Your task to perform on an android device: turn on the 24-hour format for clock Image 0: 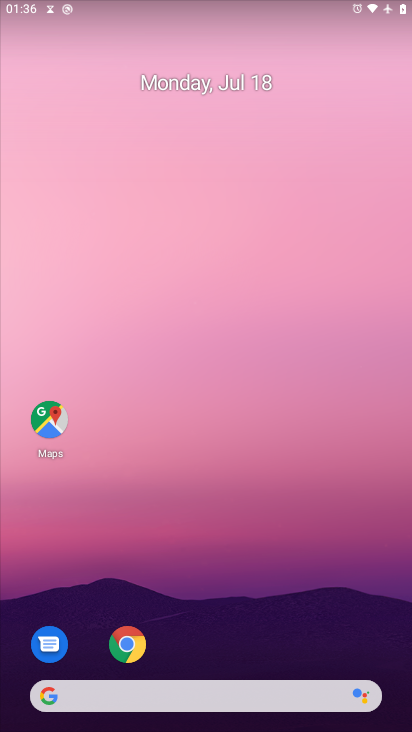
Step 0: press home button
Your task to perform on an android device: turn on the 24-hour format for clock Image 1: 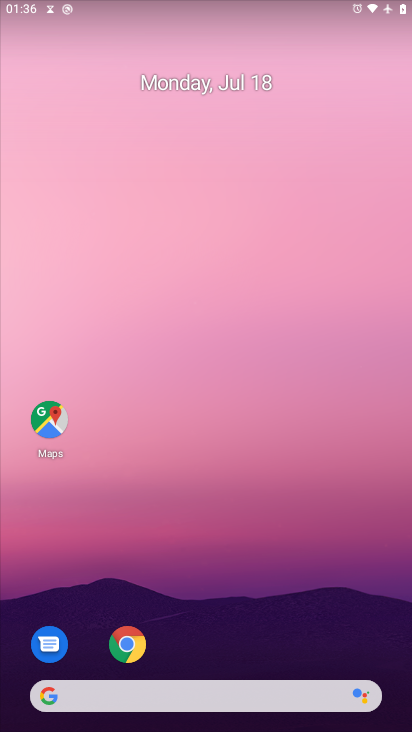
Step 1: drag from (238, 646) to (250, 0)
Your task to perform on an android device: turn on the 24-hour format for clock Image 2: 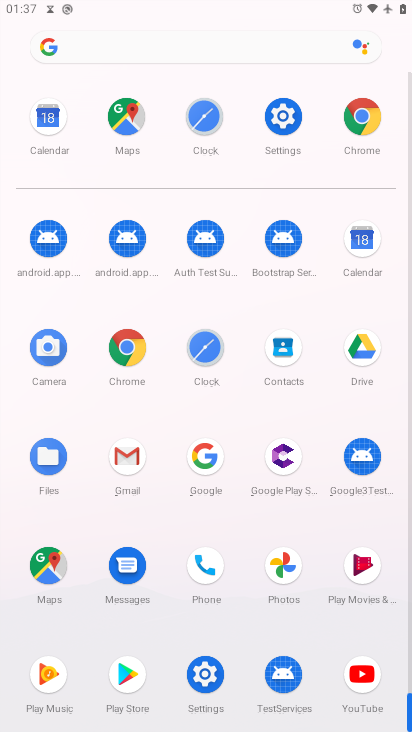
Step 2: click (282, 126)
Your task to perform on an android device: turn on the 24-hour format for clock Image 3: 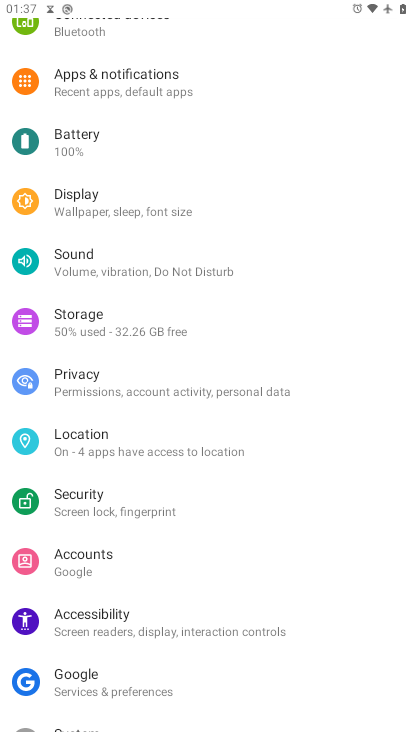
Step 3: drag from (244, 668) to (257, 14)
Your task to perform on an android device: turn on the 24-hour format for clock Image 4: 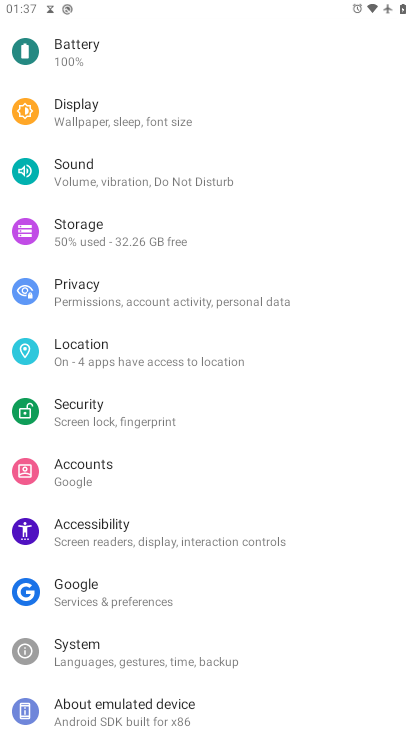
Step 4: click (87, 637)
Your task to perform on an android device: turn on the 24-hour format for clock Image 5: 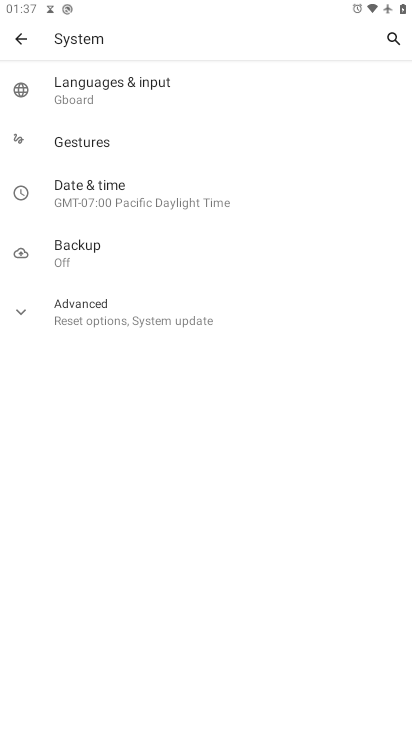
Step 5: click (128, 194)
Your task to perform on an android device: turn on the 24-hour format for clock Image 6: 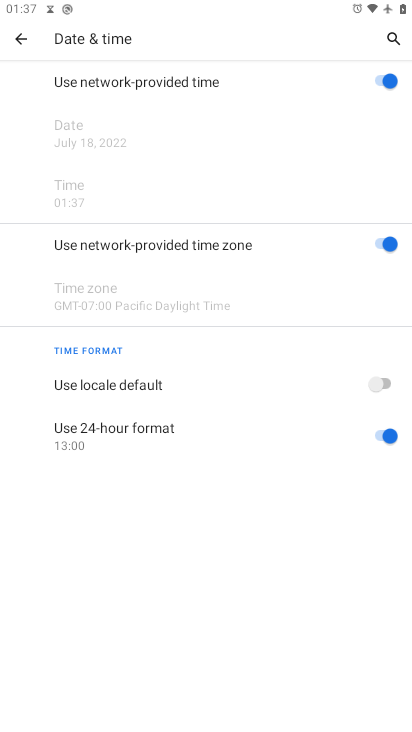
Step 6: task complete